Your task to perform on an android device: Show me popular games on the Play Store Image 0: 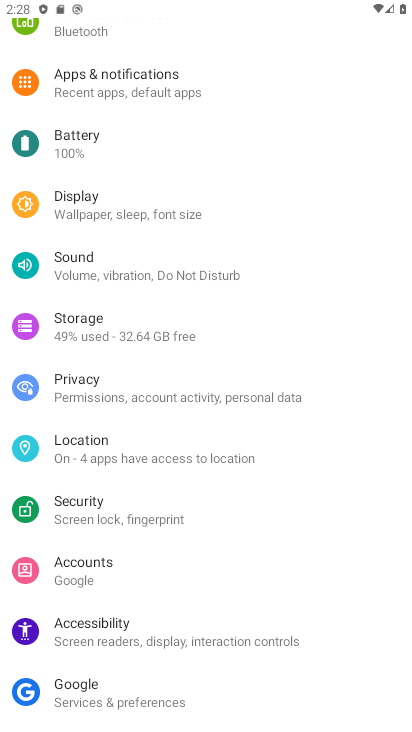
Step 0: press home button
Your task to perform on an android device: Show me popular games on the Play Store Image 1: 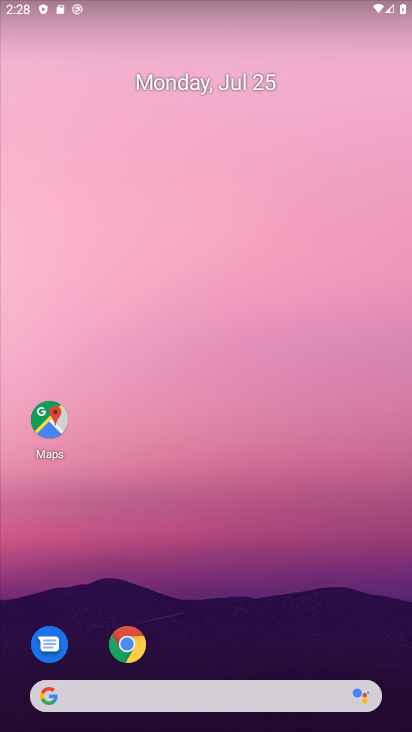
Step 1: drag from (242, 699) to (301, 263)
Your task to perform on an android device: Show me popular games on the Play Store Image 2: 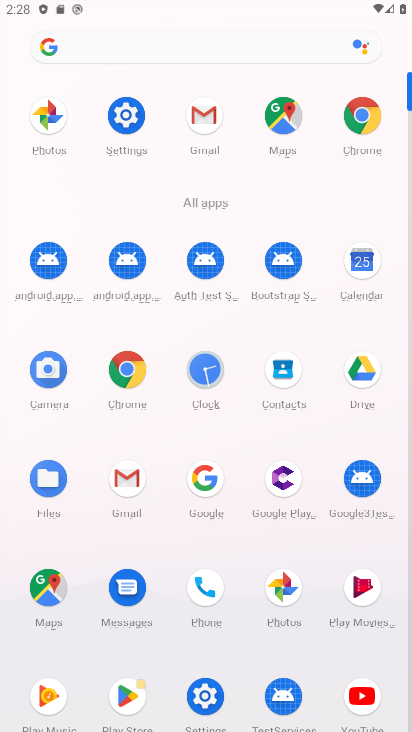
Step 2: click (128, 686)
Your task to perform on an android device: Show me popular games on the Play Store Image 3: 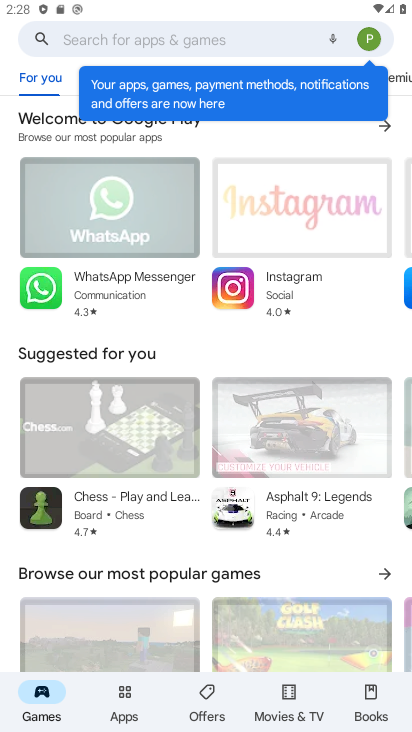
Step 3: click (255, 576)
Your task to perform on an android device: Show me popular games on the Play Store Image 4: 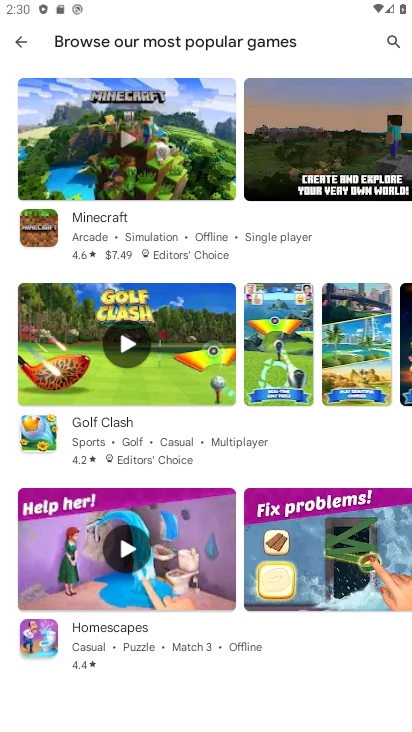
Step 4: task complete